Your task to perform on an android device: Do I have any events today? Image 0: 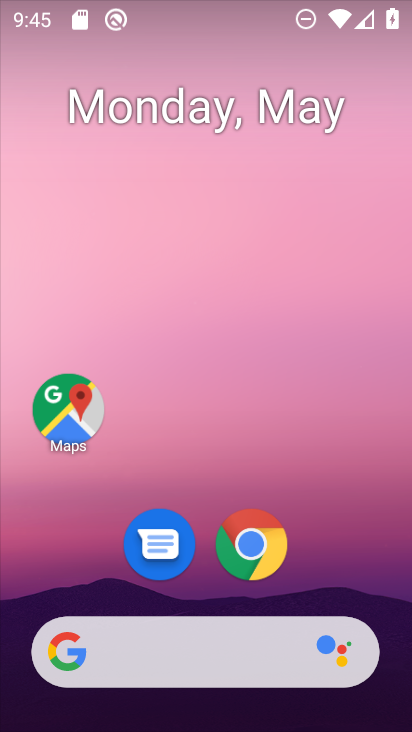
Step 0: drag from (310, 558) to (296, 210)
Your task to perform on an android device: Do I have any events today? Image 1: 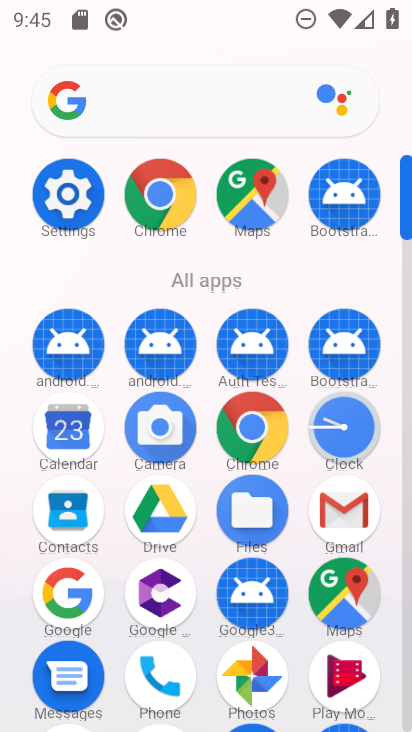
Step 1: click (61, 437)
Your task to perform on an android device: Do I have any events today? Image 2: 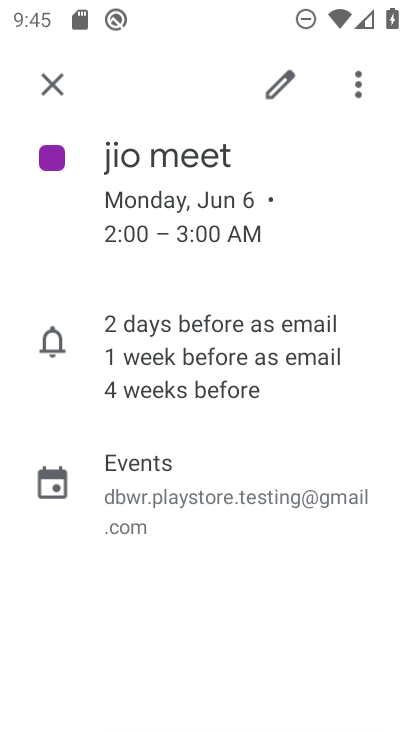
Step 2: click (60, 83)
Your task to perform on an android device: Do I have any events today? Image 3: 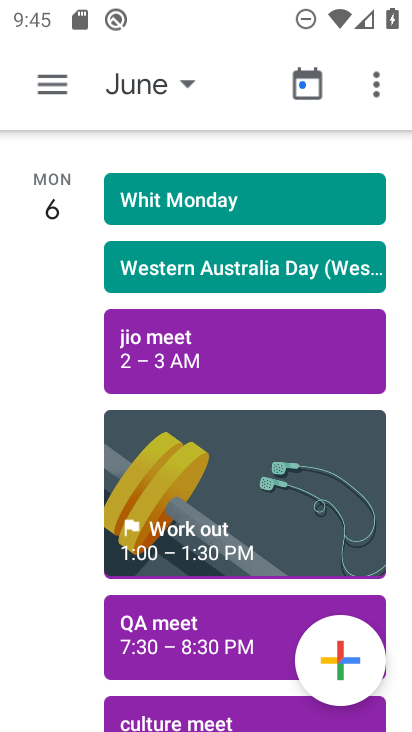
Step 3: click (160, 91)
Your task to perform on an android device: Do I have any events today? Image 4: 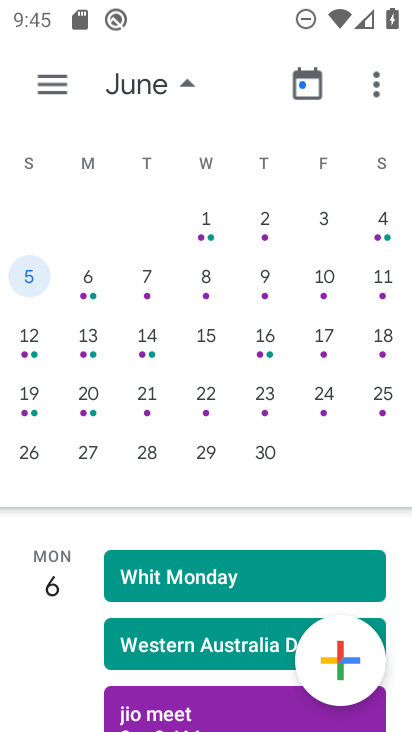
Step 4: drag from (49, 191) to (400, 230)
Your task to perform on an android device: Do I have any events today? Image 5: 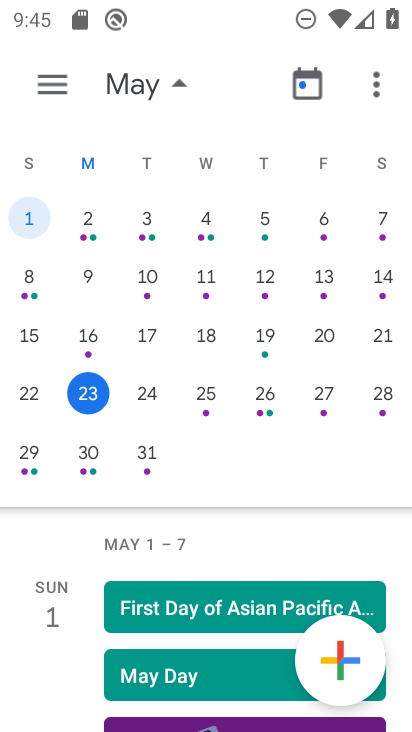
Step 5: click (100, 402)
Your task to perform on an android device: Do I have any events today? Image 6: 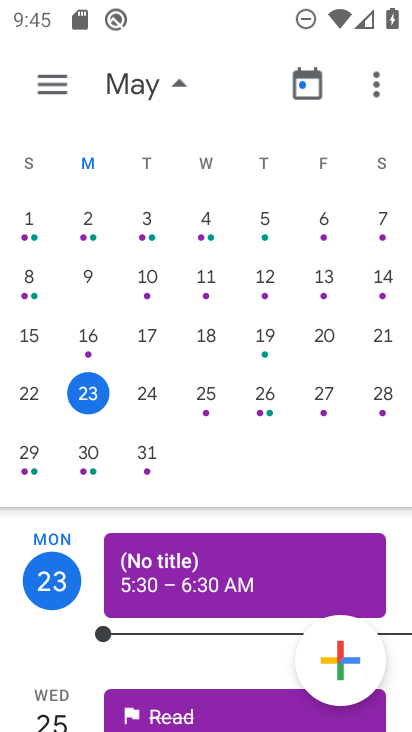
Step 6: task complete